Your task to perform on an android device: Open ESPN.com Image 0: 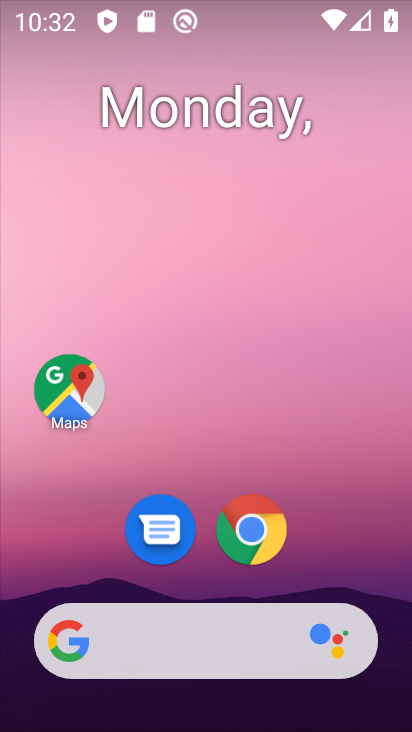
Step 0: click (252, 535)
Your task to perform on an android device: Open ESPN.com Image 1: 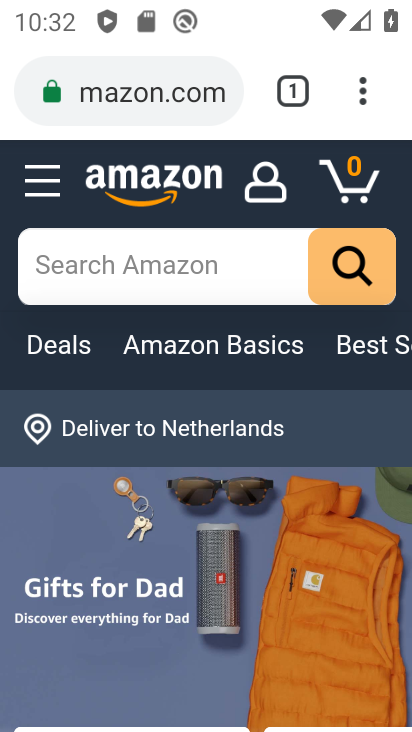
Step 1: click (364, 99)
Your task to perform on an android device: Open ESPN.com Image 2: 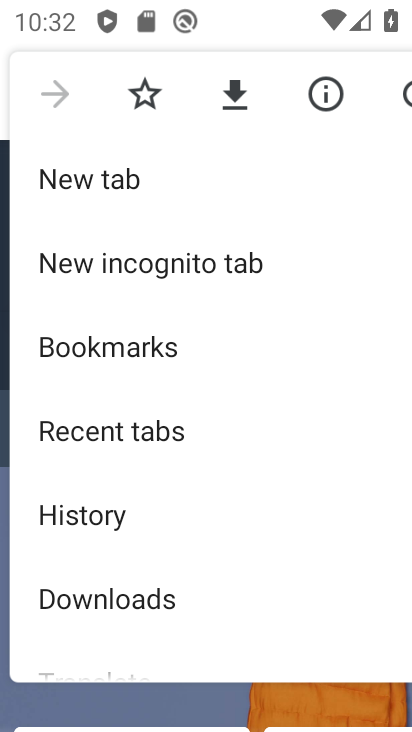
Step 2: click (60, 177)
Your task to perform on an android device: Open ESPN.com Image 3: 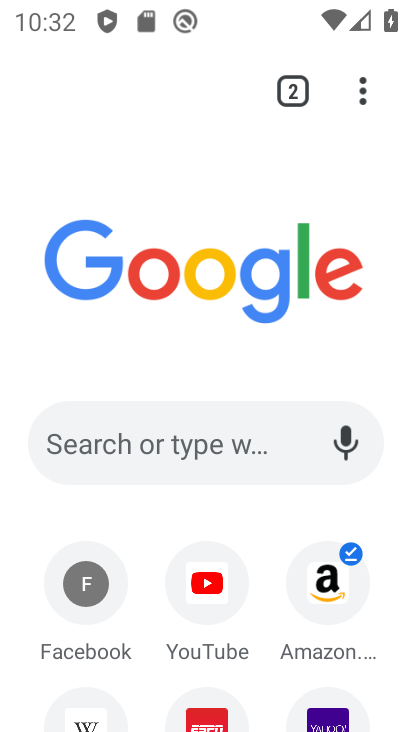
Step 3: click (200, 717)
Your task to perform on an android device: Open ESPN.com Image 4: 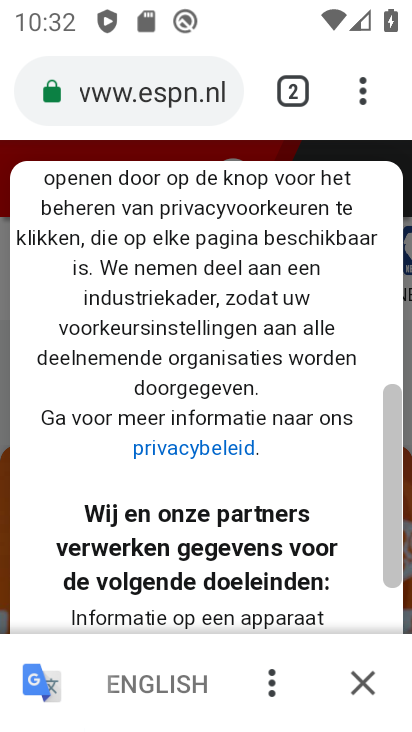
Step 4: task complete